Your task to perform on an android device: Open Maps and search for coffee Image 0: 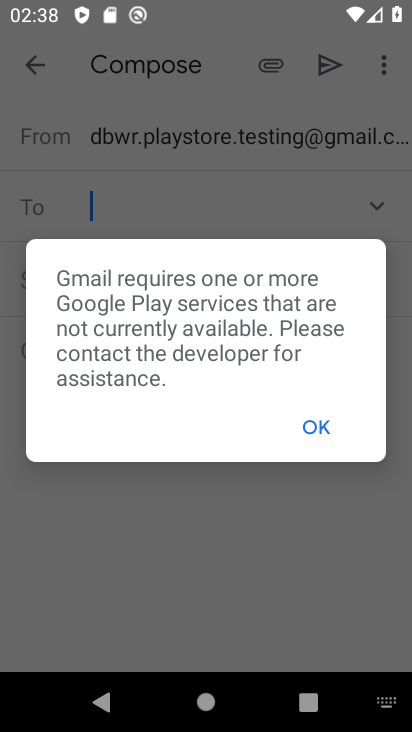
Step 0: drag from (182, 629) to (232, 88)
Your task to perform on an android device: Open Maps and search for coffee Image 1: 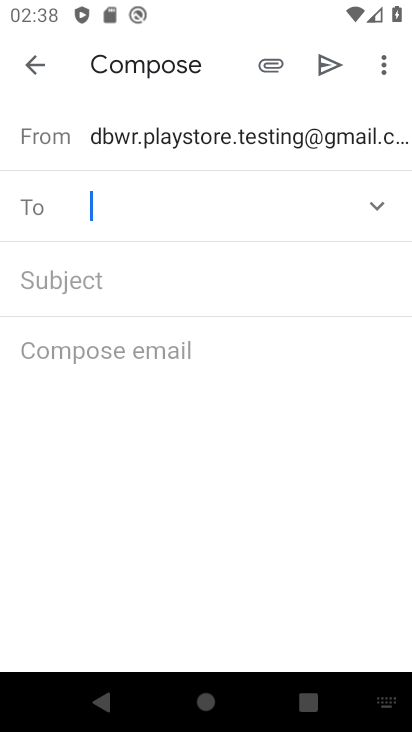
Step 1: press home button
Your task to perform on an android device: Open Maps and search for coffee Image 2: 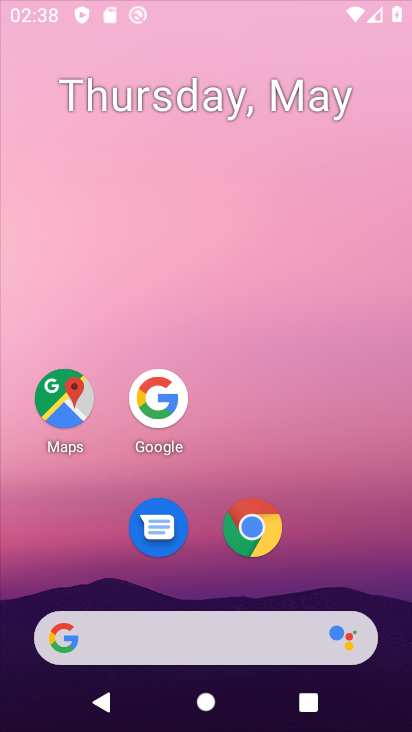
Step 2: drag from (205, 606) to (300, 88)
Your task to perform on an android device: Open Maps and search for coffee Image 3: 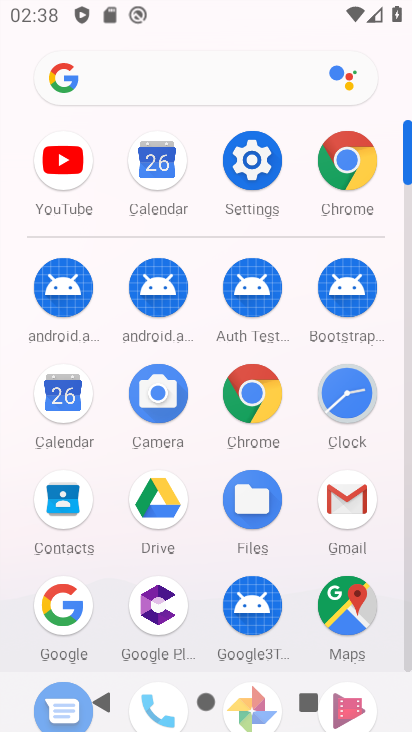
Step 3: click (337, 595)
Your task to perform on an android device: Open Maps and search for coffee Image 4: 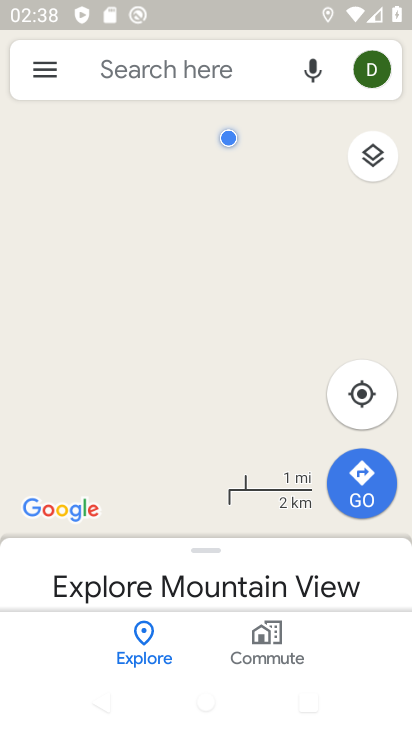
Step 4: click (121, 76)
Your task to perform on an android device: Open Maps and search for coffee Image 5: 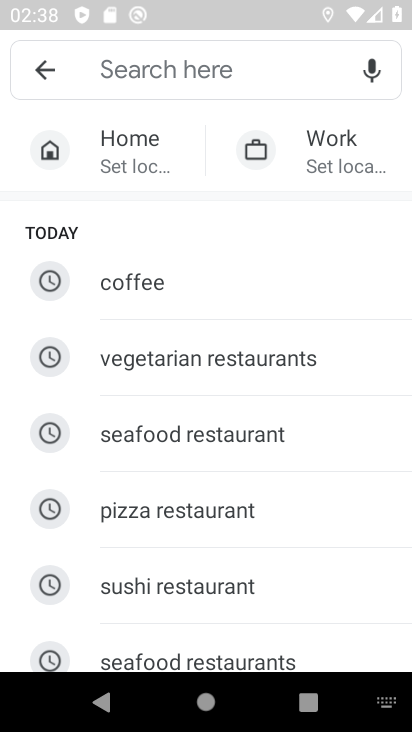
Step 5: click (158, 267)
Your task to perform on an android device: Open Maps and search for coffee Image 6: 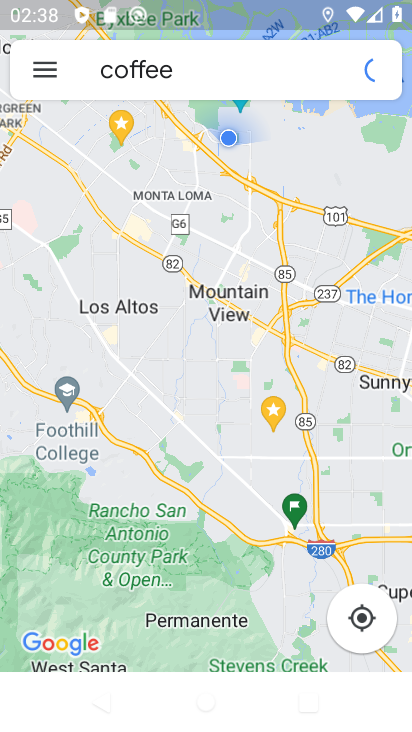
Step 6: task complete